Your task to perform on an android device: Open Chrome and go to settings Image 0: 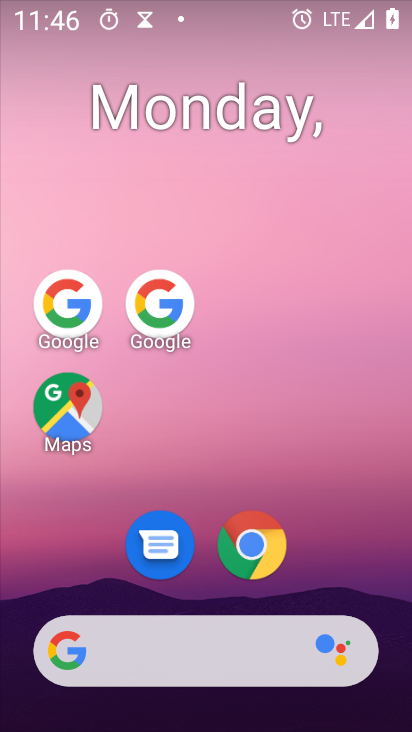
Step 0: press home button
Your task to perform on an android device: Open Chrome and go to settings Image 1: 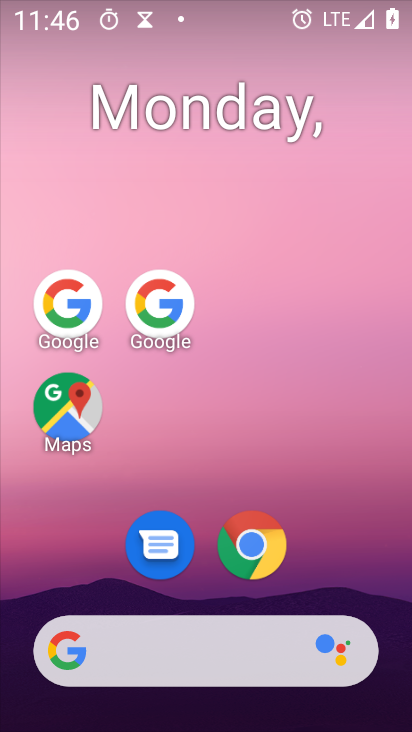
Step 1: click (253, 561)
Your task to perform on an android device: Open Chrome and go to settings Image 2: 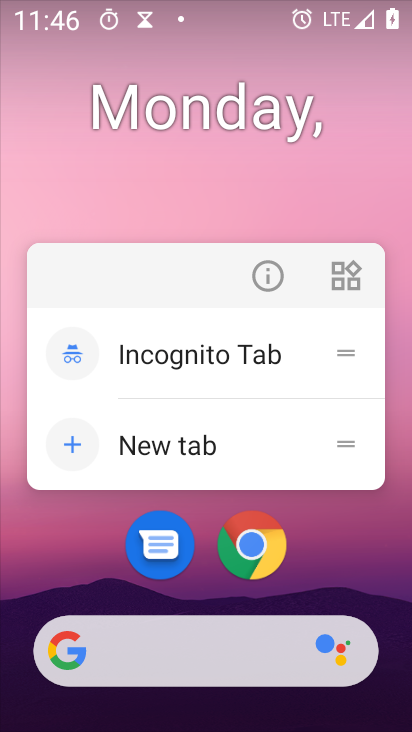
Step 2: click (257, 546)
Your task to perform on an android device: Open Chrome and go to settings Image 3: 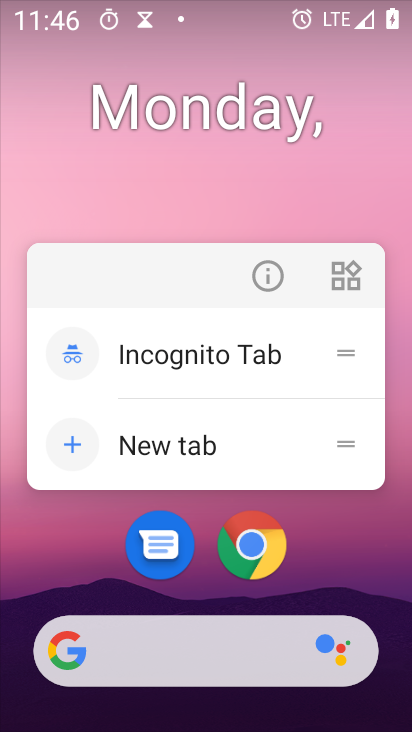
Step 3: click (250, 554)
Your task to perform on an android device: Open Chrome and go to settings Image 4: 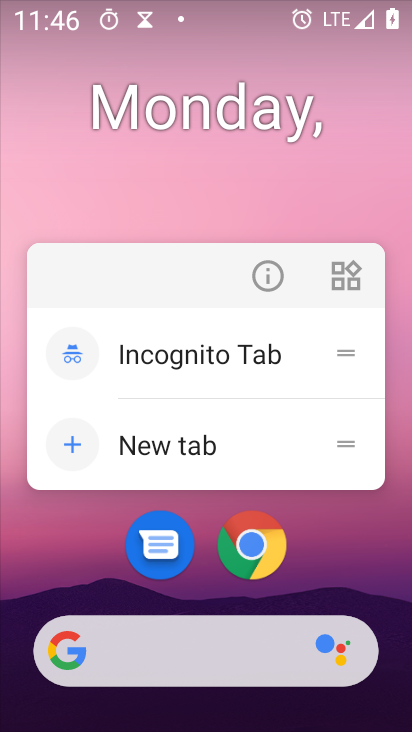
Step 4: click (250, 555)
Your task to perform on an android device: Open Chrome and go to settings Image 5: 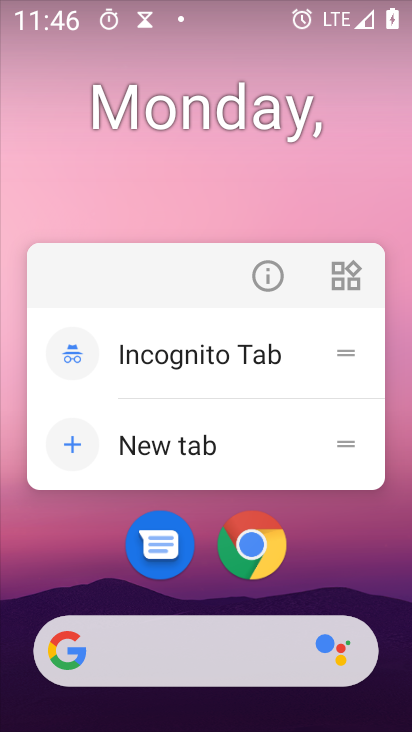
Step 5: click (248, 568)
Your task to perform on an android device: Open Chrome and go to settings Image 6: 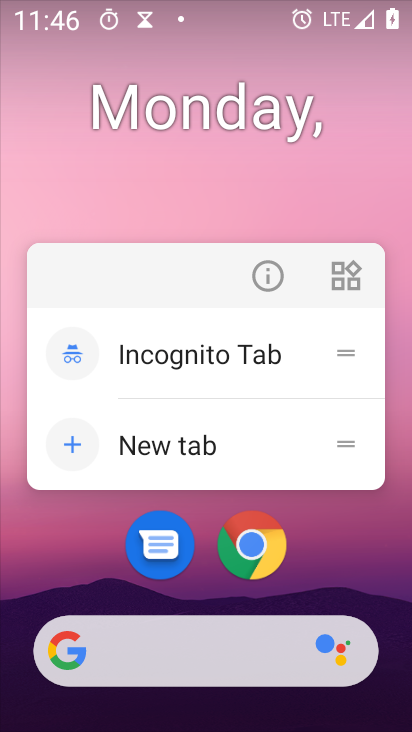
Step 6: click (260, 549)
Your task to perform on an android device: Open Chrome and go to settings Image 7: 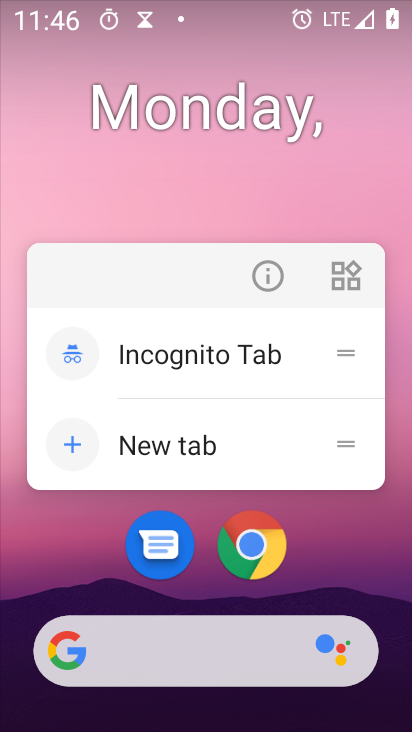
Step 7: click (250, 553)
Your task to perform on an android device: Open Chrome and go to settings Image 8: 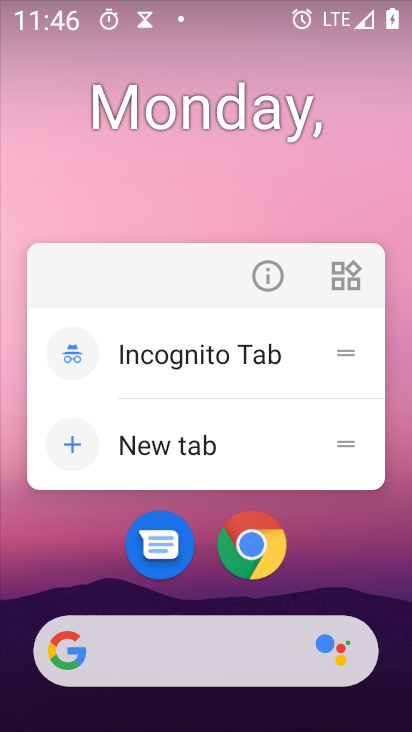
Step 8: click (250, 554)
Your task to perform on an android device: Open Chrome and go to settings Image 9: 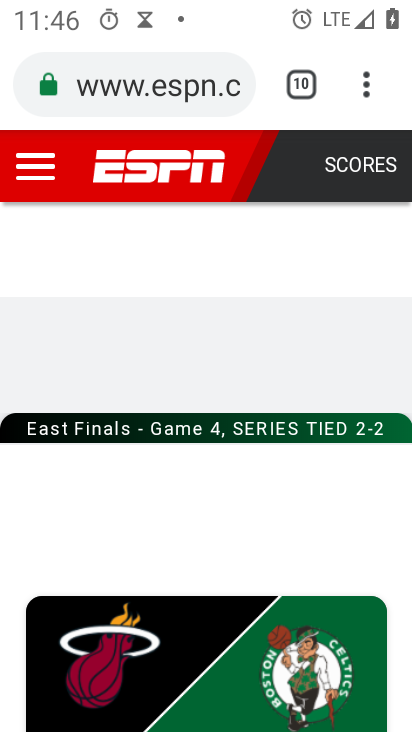
Step 9: task complete